Your task to perform on an android device: Go to notification settings Image 0: 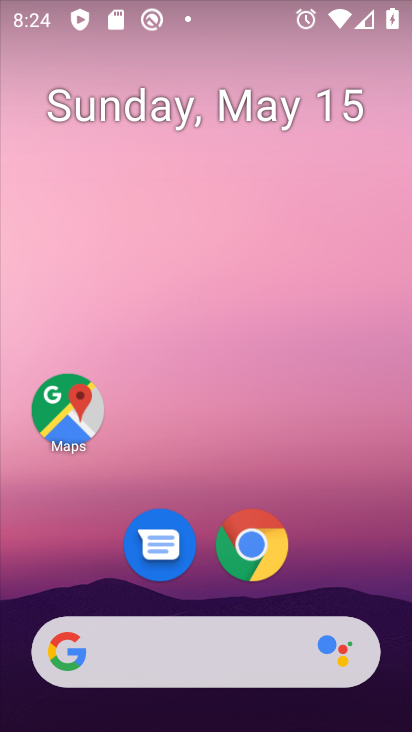
Step 0: drag from (370, 543) to (367, 156)
Your task to perform on an android device: Go to notification settings Image 1: 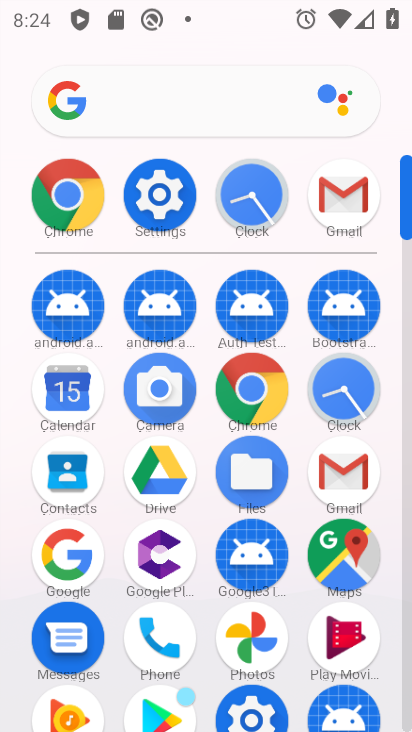
Step 1: click (168, 173)
Your task to perform on an android device: Go to notification settings Image 2: 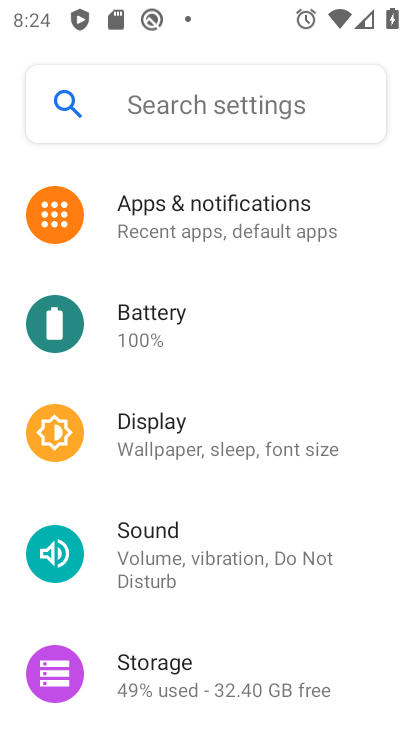
Step 2: drag from (370, 649) to (371, 359)
Your task to perform on an android device: Go to notification settings Image 3: 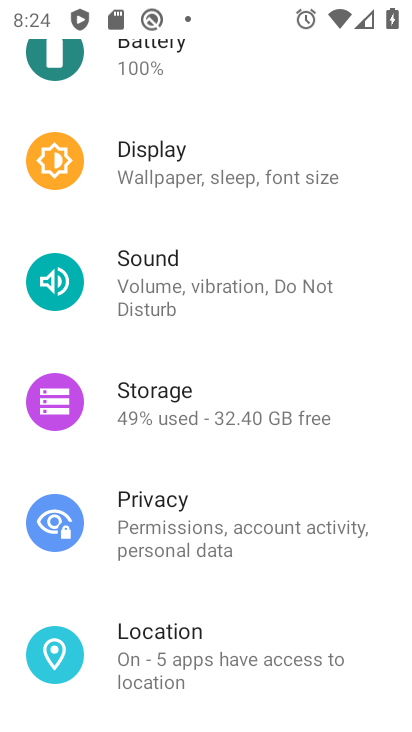
Step 3: drag from (367, 654) to (377, 386)
Your task to perform on an android device: Go to notification settings Image 4: 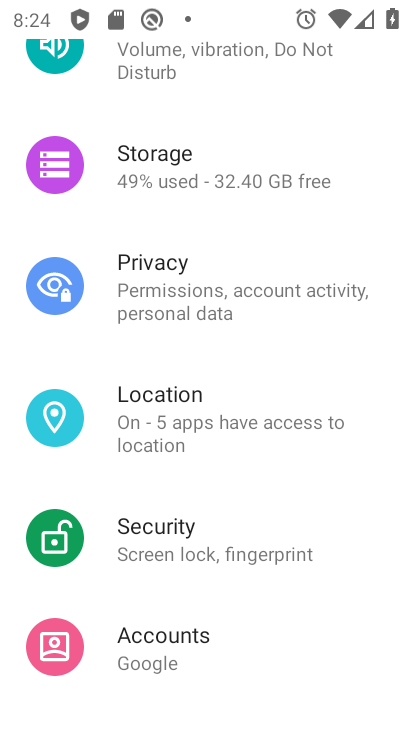
Step 4: drag from (359, 649) to (369, 389)
Your task to perform on an android device: Go to notification settings Image 5: 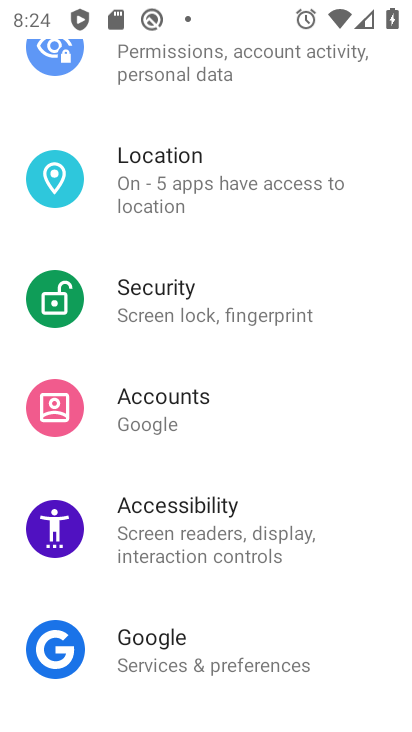
Step 5: drag from (356, 677) to (363, 512)
Your task to perform on an android device: Go to notification settings Image 6: 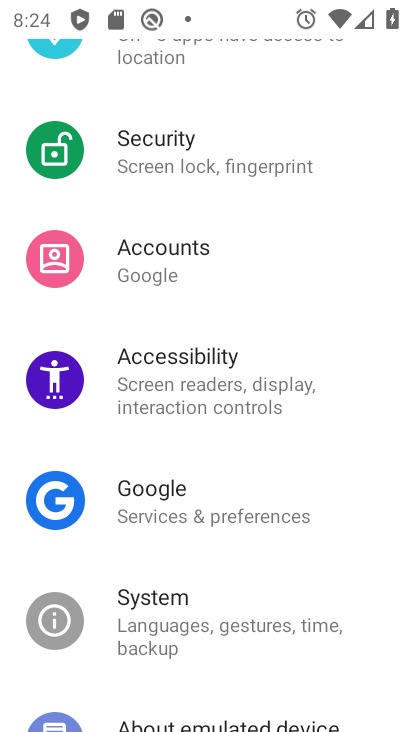
Step 6: drag from (350, 322) to (348, 538)
Your task to perform on an android device: Go to notification settings Image 7: 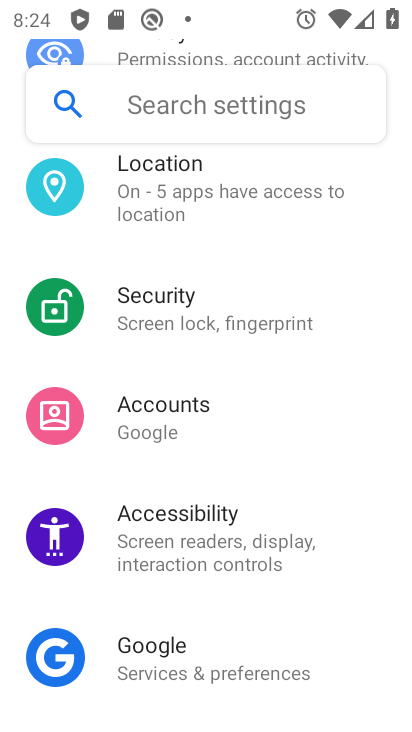
Step 7: drag from (367, 288) to (370, 527)
Your task to perform on an android device: Go to notification settings Image 8: 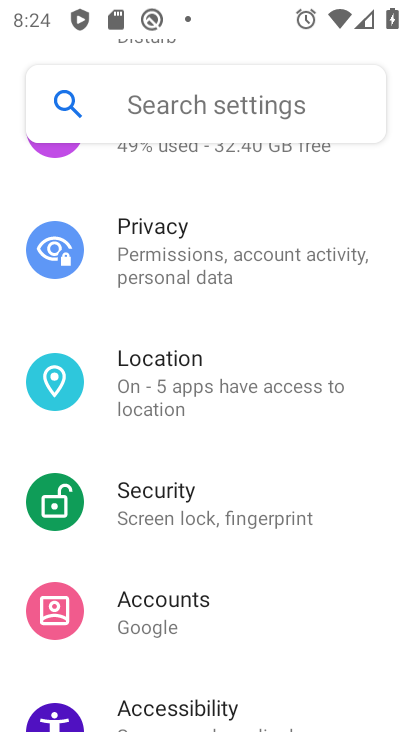
Step 8: drag from (374, 202) to (378, 461)
Your task to perform on an android device: Go to notification settings Image 9: 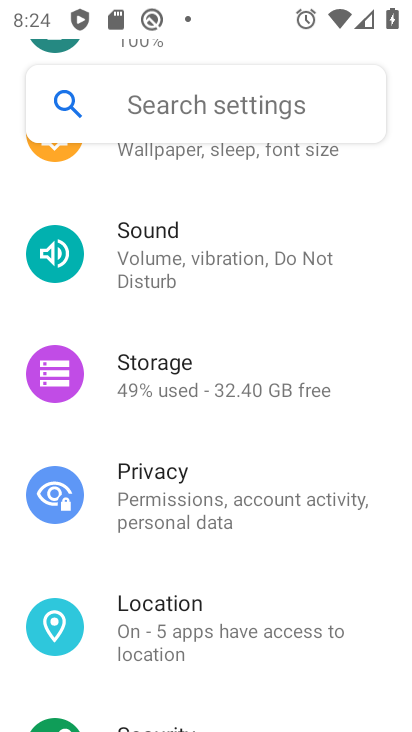
Step 9: drag from (382, 217) to (368, 462)
Your task to perform on an android device: Go to notification settings Image 10: 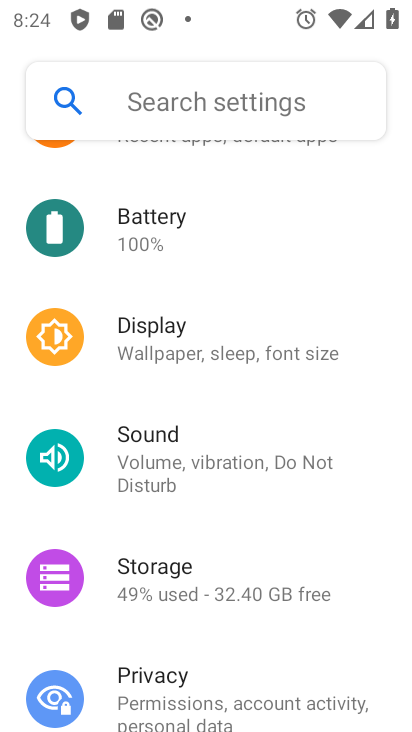
Step 10: drag from (368, 226) to (364, 449)
Your task to perform on an android device: Go to notification settings Image 11: 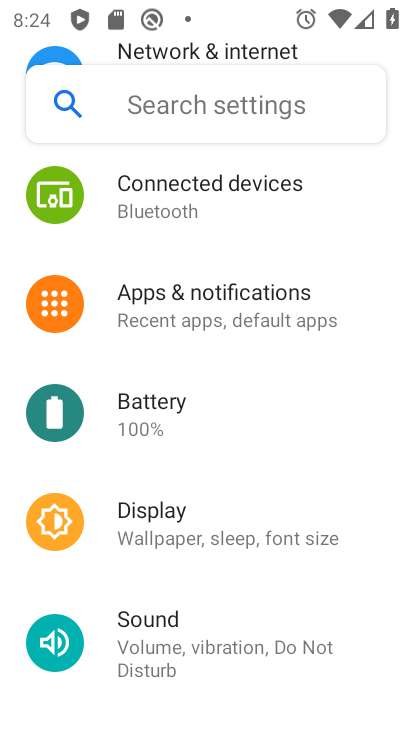
Step 11: click (249, 296)
Your task to perform on an android device: Go to notification settings Image 12: 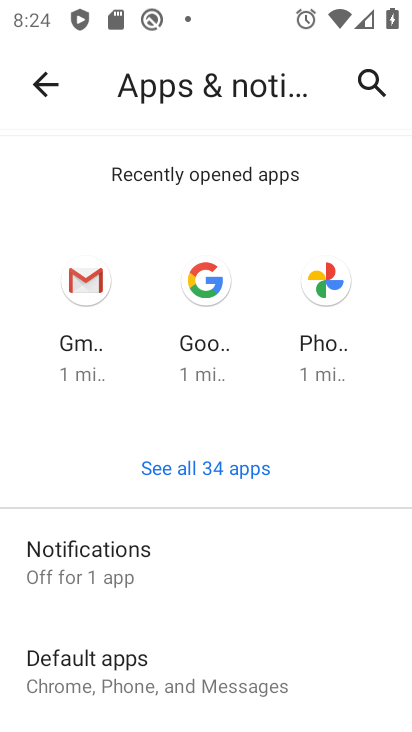
Step 12: click (131, 576)
Your task to perform on an android device: Go to notification settings Image 13: 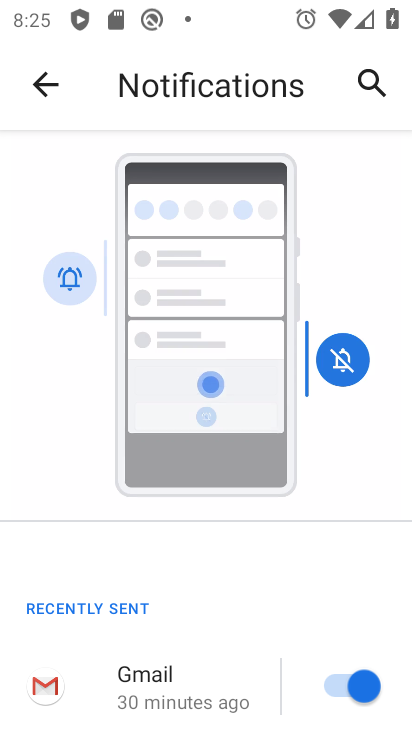
Step 13: task complete